Your task to perform on an android device: snooze an email in the gmail app Image 0: 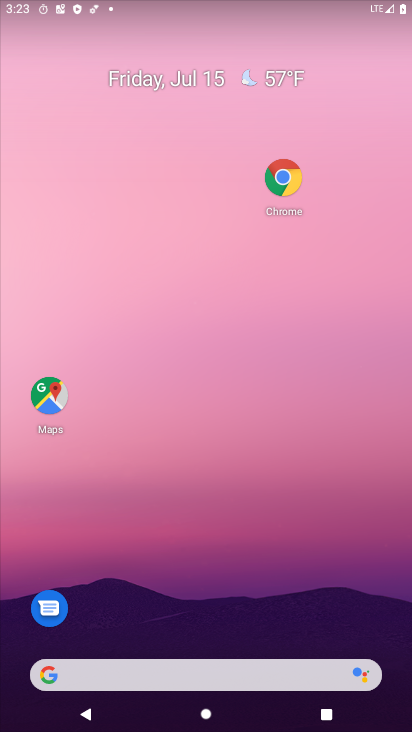
Step 0: drag from (228, 533) to (187, 54)
Your task to perform on an android device: snooze an email in the gmail app Image 1: 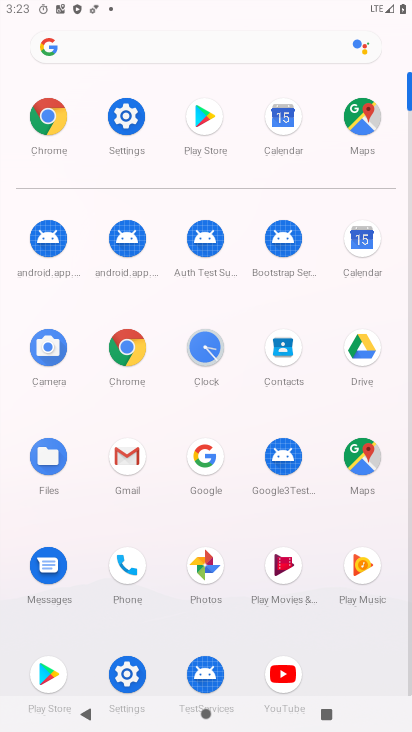
Step 1: click (127, 451)
Your task to perform on an android device: snooze an email in the gmail app Image 2: 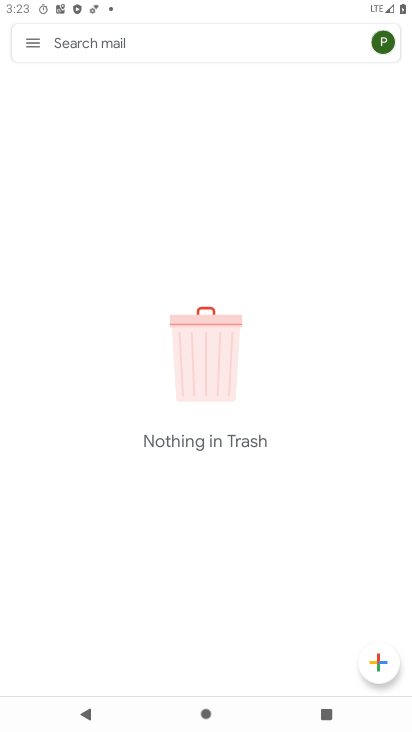
Step 2: click (37, 48)
Your task to perform on an android device: snooze an email in the gmail app Image 3: 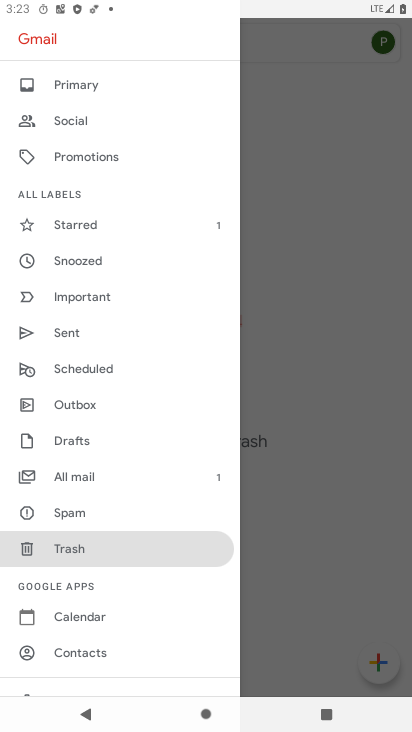
Step 3: click (72, 249)
Your task to perform on an android device: snooze an email in the gmail app Image 4: 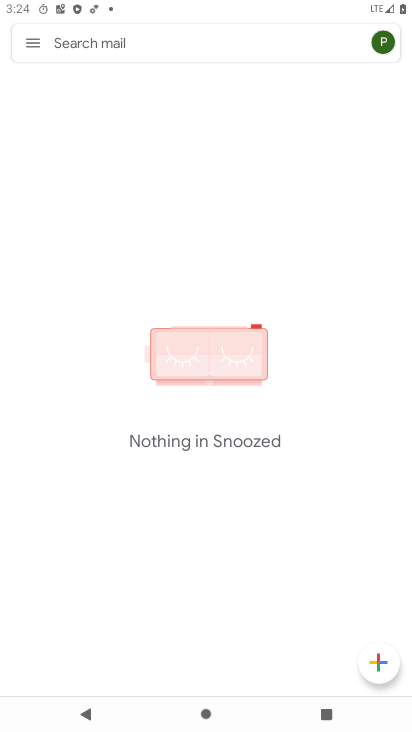
Step 4: click (26, 44)
Your task to perform on an android device: snooze an email in the gmail app Image 5: 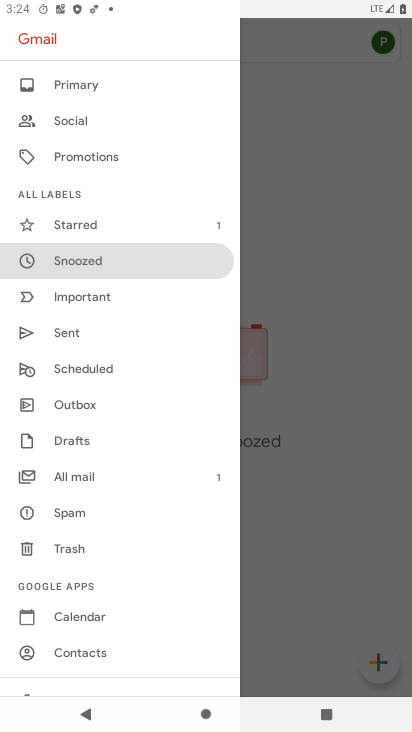
Step 5: click (65, 86)
Your task to perform on an android device: snooze an email in the gmail app Image 6: 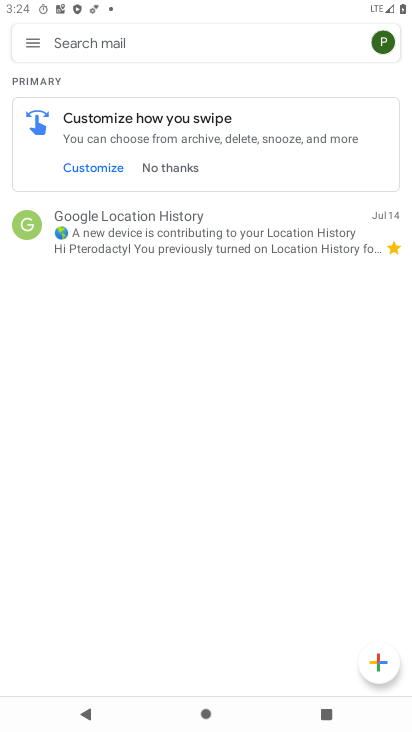
Step 6: click (20, 223)
Your task to perform on an android device: snooze an email in the gmail app Image 7: 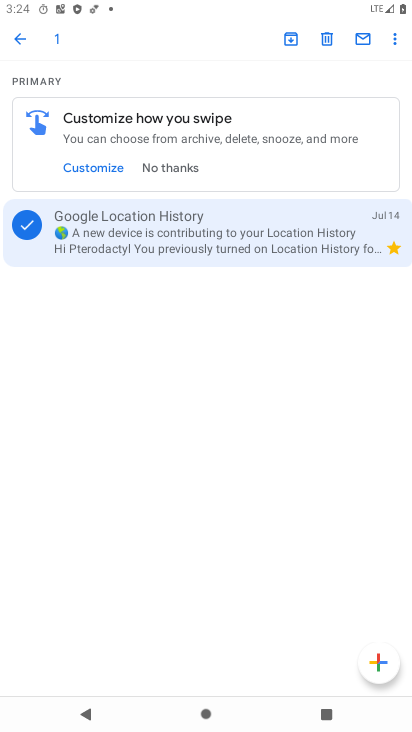
Step 7: click (384, 38)
Your task to perform on an android device: snooze an email in the gmail app Image 8: 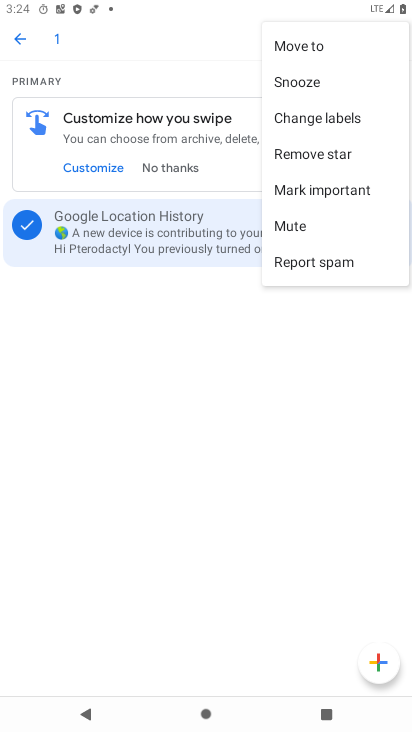
Step 8: click (275, 83)
Your task to perform on an android device: snooze an email in the gmail app Image 9: 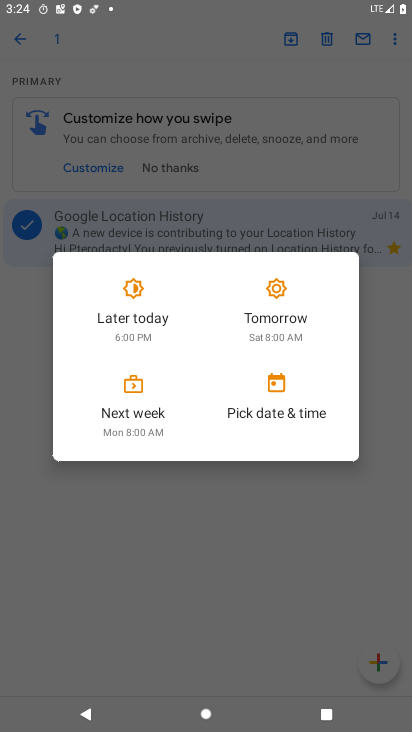
Step 9: click (115, 310)
Your task to perform on an android device: snooze an email in the gmail app Image 10: 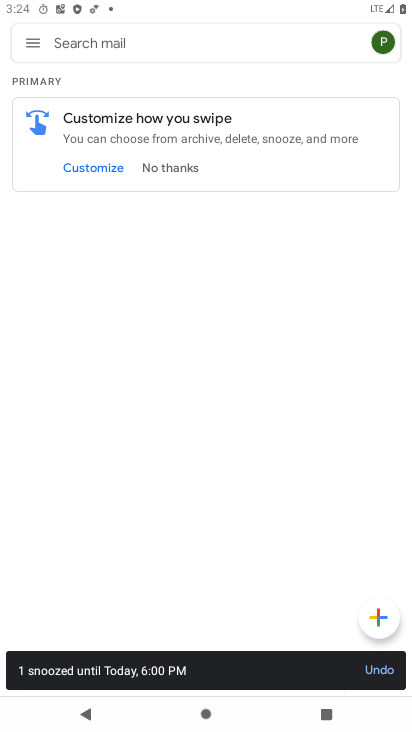
Step 10: task complete